Your task to perform on an android device: toggle airplane mode Image 0: 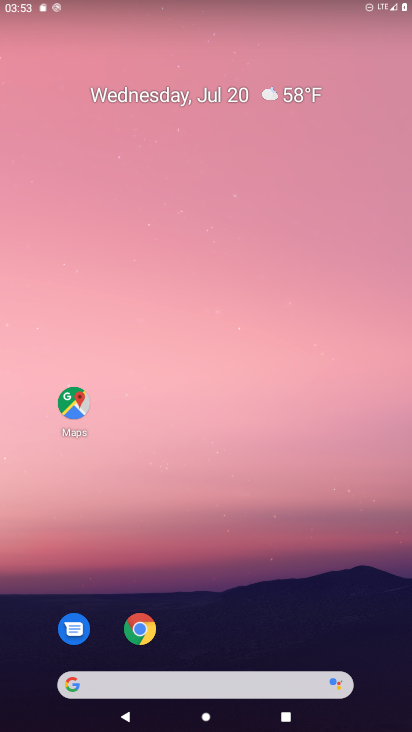
Step 0: drag from (194, 3) to (182, 418)
Your task to perform on an android device: toggle airplane mode Image 1: 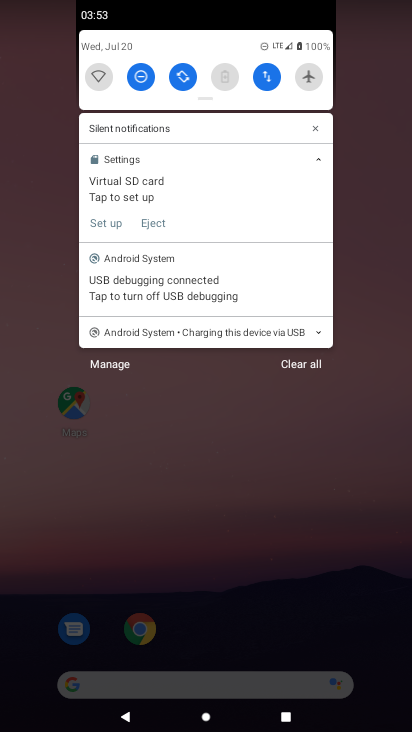
Step 1: click (313, 71)
Your task to perform on an android device: toggle airplane mode Image 2: 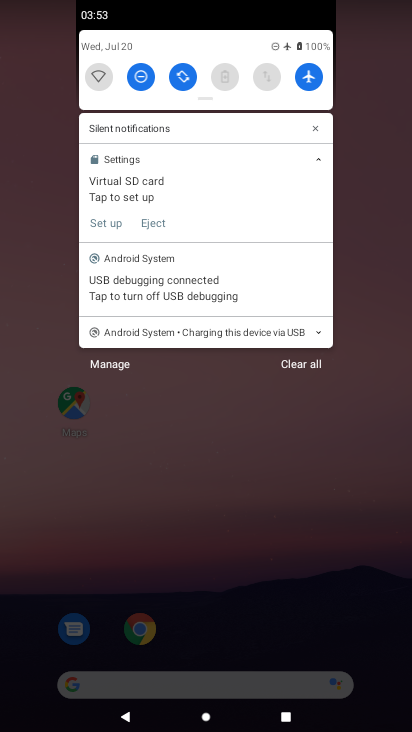
Step 2: task complete